Your task to perform on an android device: change your default location settings in chrome Image 0: 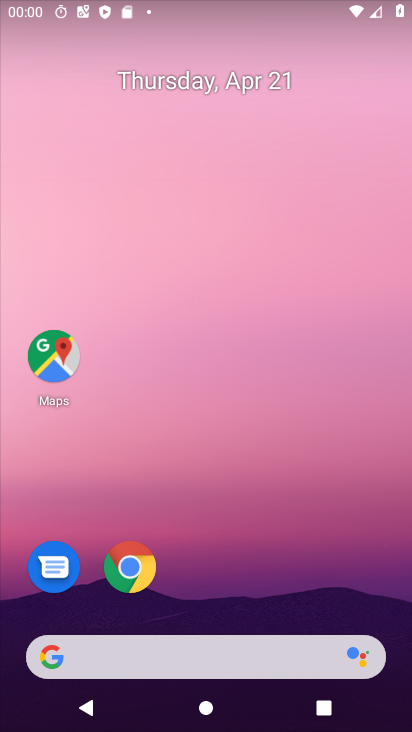
Step 0: click (226, 249)
Your task to perform on an android device: change your default location settings in chrome Image 1: 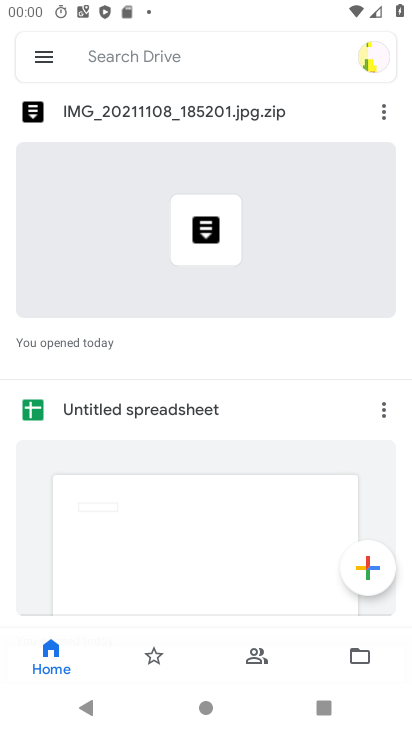
Step 1: press home button
Your task to perform on an android device: change your default location settings in chrome Image 2: 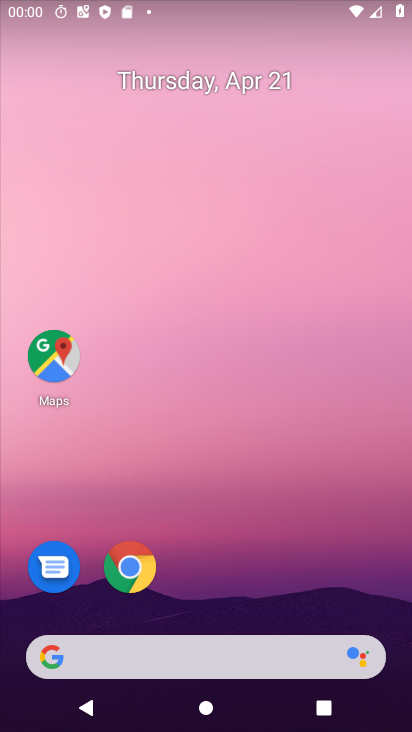
Step 2: drag from (244, 546) to (222, 190)
Your task to perform on an android device: change your default location settings in chrome Image 3: 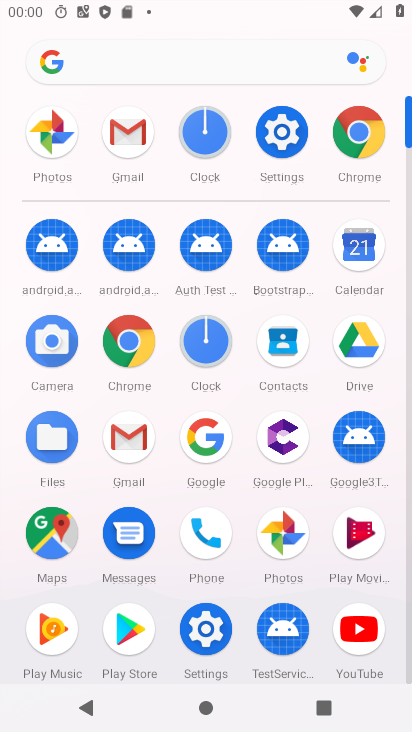
Step 3: click (345, 138)
Your task to perform on an android device: change your default location settings in chrome Image 4: 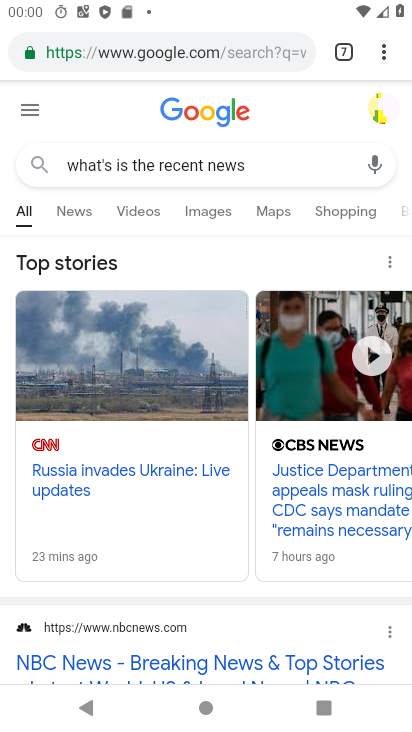
Step 4: click (377, 47)
Your task to perform on an android device: change your default location settings in chrome Image 5: 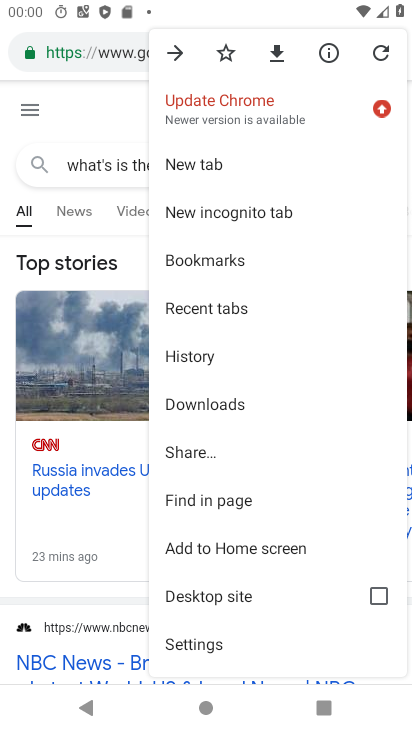
Step 5: click (217, 634)
Your task to perform on an android device: change your default location settings in chrome Image 6: 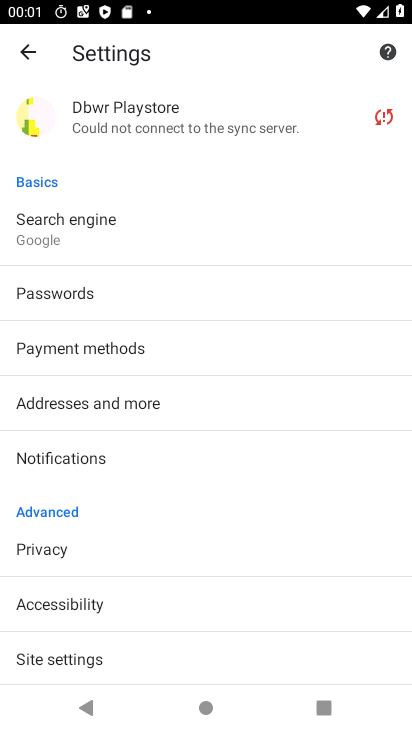
Step 6: drag from (180, 598) to (250, 147)
Your task to perform on an android device: change your default location settings in chrome Image 7: 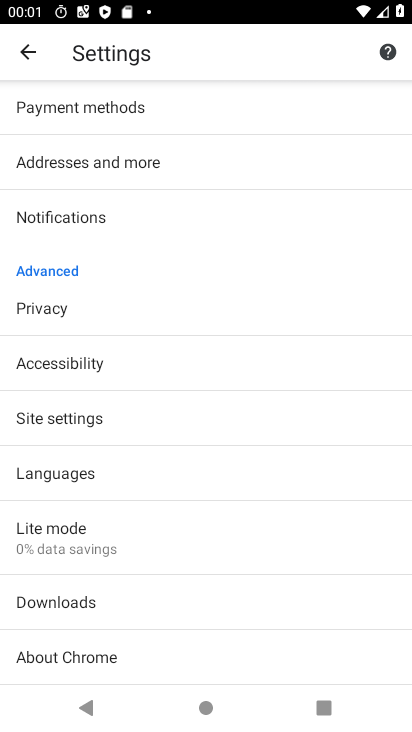
Step 7: click (119, 418)
Your task to perform on an android device: change your default location settings in chrome Image 8: 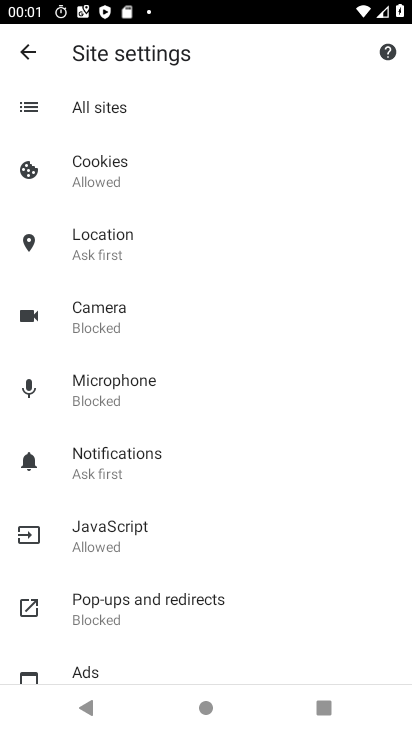
Step 8: click (134, 254)
Your task to perform on an android device: change your default location settings in chrome Image 9: 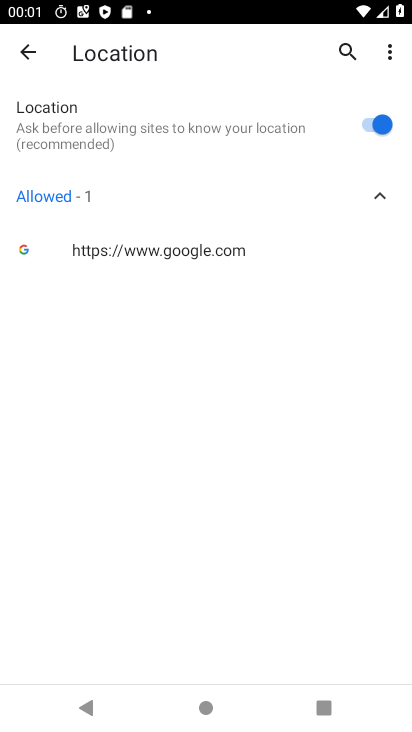
Step 9: click (357, 122)
Your task to perform on an android device: change your default location settings in chrome Image 10: 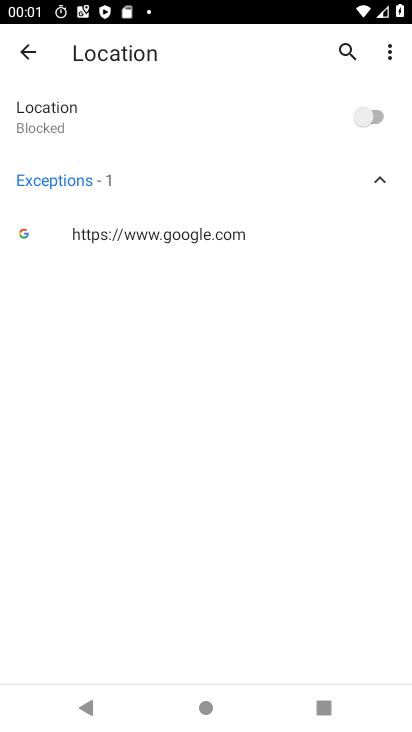
Step 10: task complete